Your task to perform on an android device: Open Google Chrome and click the shortcut for Amazon.com Image 0: 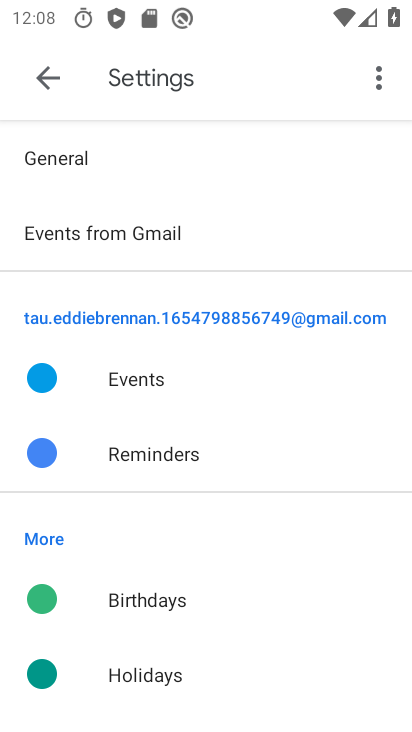
Step 0: press back button
Your task to perform on an android device: Open Google Chrome and click the shortcut for Amazon.com Image 1: 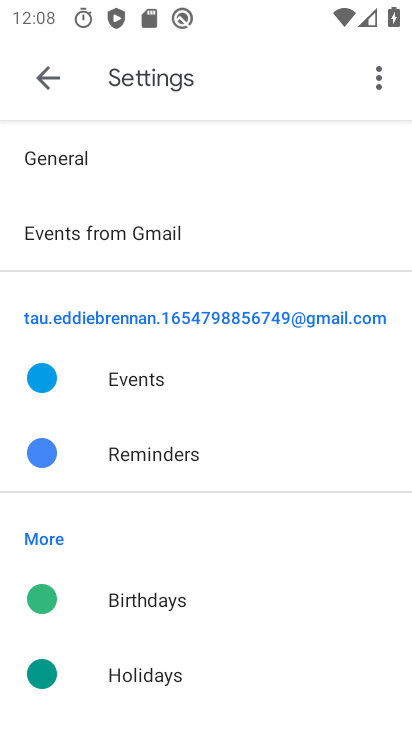
Step 1: press back button
Your task to perform on an android device: Open Google Chrome and click the shortcut for Amazon.com Image 2: 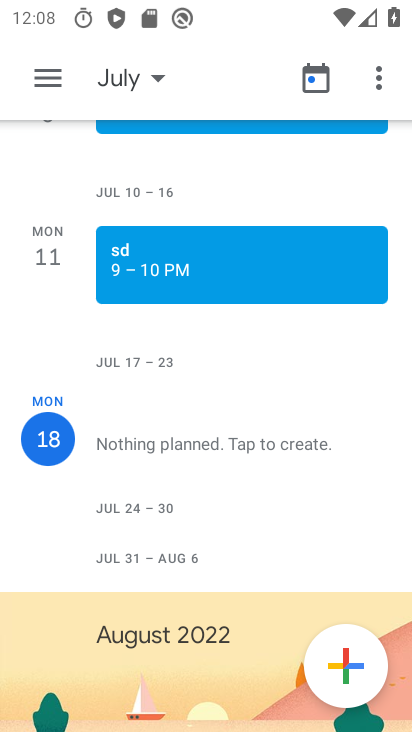
Step 2: press back button
Your task to perform on an android device: Open Google Chrome and click the shortcut for Amazon.com Image 3: 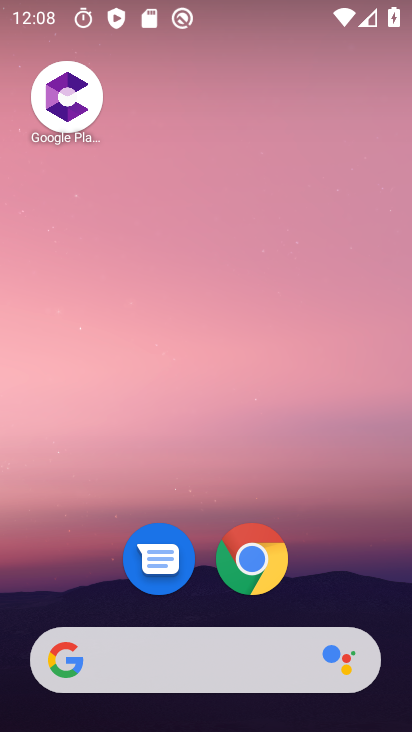
Step 3: click (271, 556)
Your task to perform on an android device: Open Google Chrome and click the shortcut for Amazon.com Image 4: 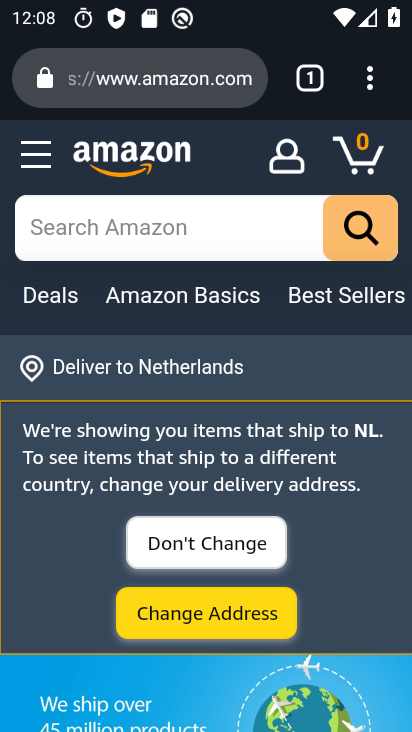
Step 4: task complete